Your task to perform on an android device: Show me productivity apps on the Play Store Image 0: 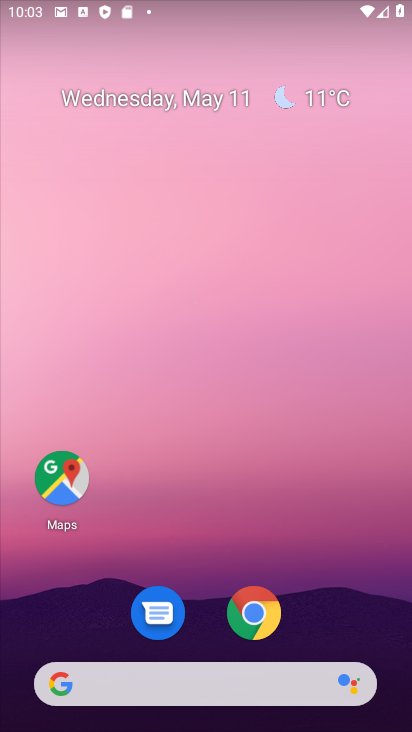
Step 0: drag from (243, 542) to (260, 191)
Your task to perform on an android device: Show me productivity apps on the Play Store Image 1: 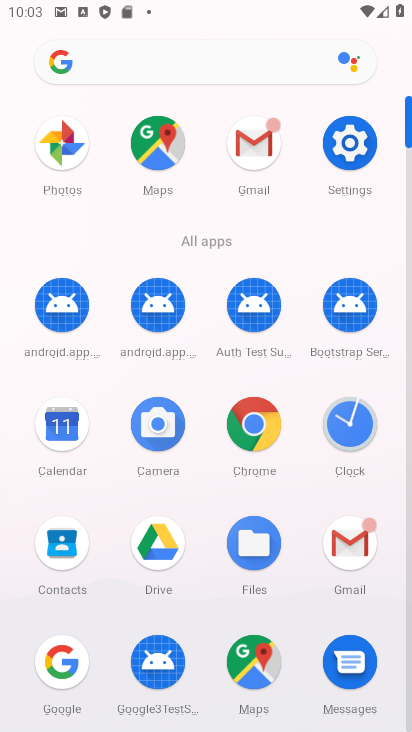
Step 1: drag from (217, 363) to (210, 108)
Your task to perform on an android device: Show me productivity apps on the Play Store Image 2: 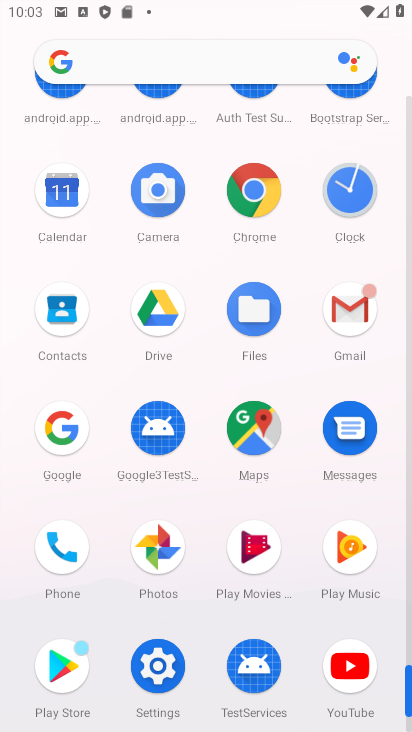
Step 2: click (57, 668)
Your task to perform on an android device: Show me productivity apps on the Play Store Image 3: 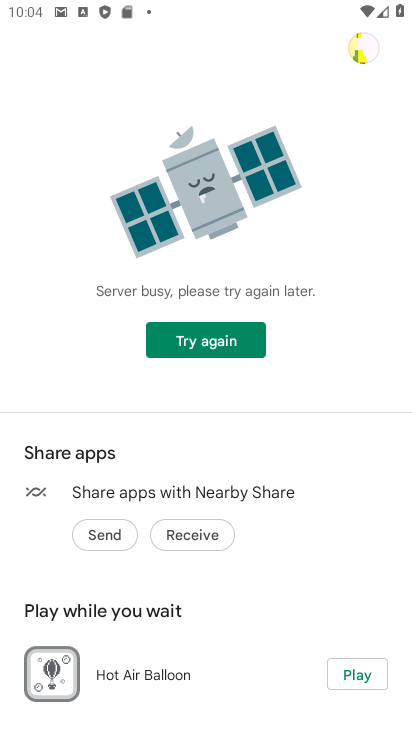
Step 3: click (235, 340)
Your task to perform on an android device: Show me productivity apps on the Play Store Image 4: 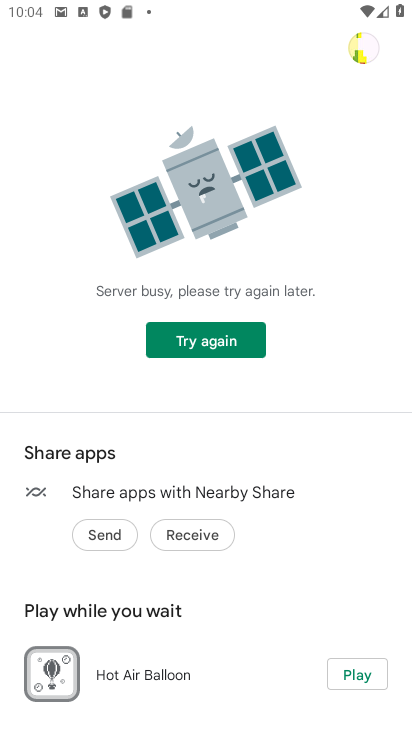
Step 4: task complete